Your task to perform on an android device: turn notification dots on Image 0: 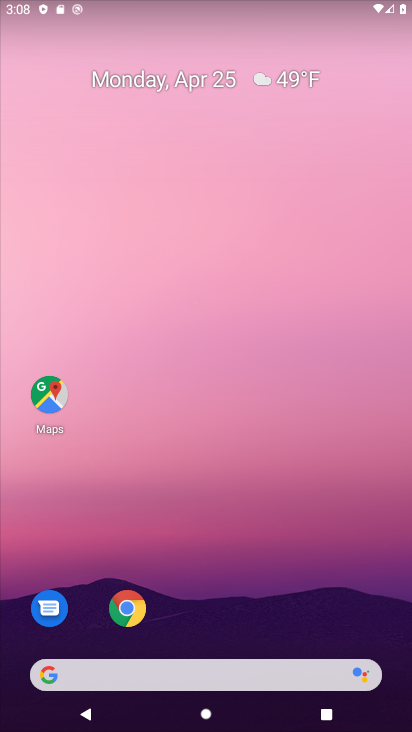
Step 0: click (238, 133)
Your task to perform on an android device: turn notification dots on Image 1: 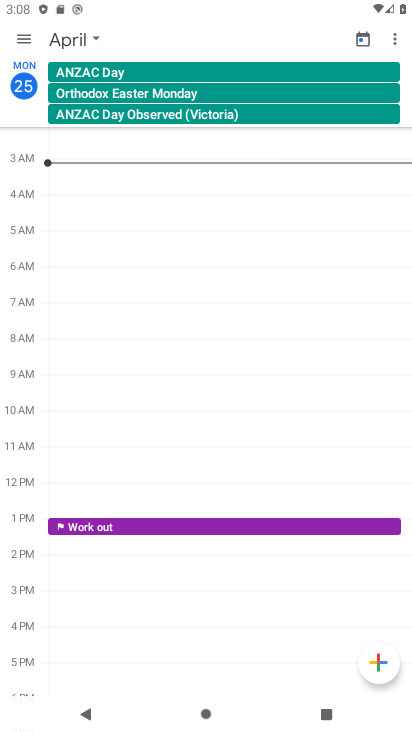
Step 1: click (19, 47)
Your task to perform on an android device: turn notification dots on Image 2: 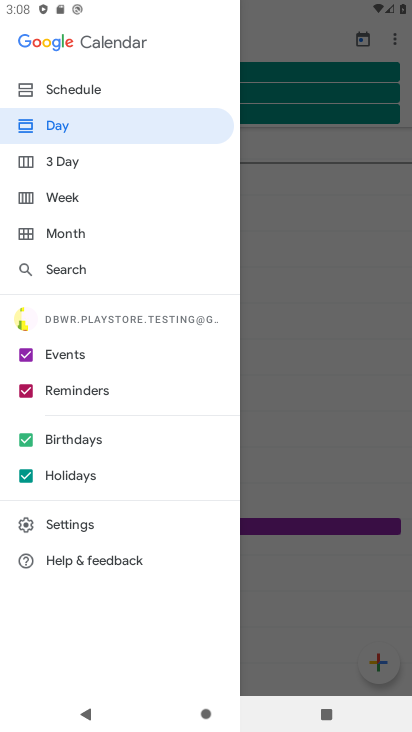
Step 2: click (72, 530)
Your task to perform on an android device: turn notification dots on Image 3: 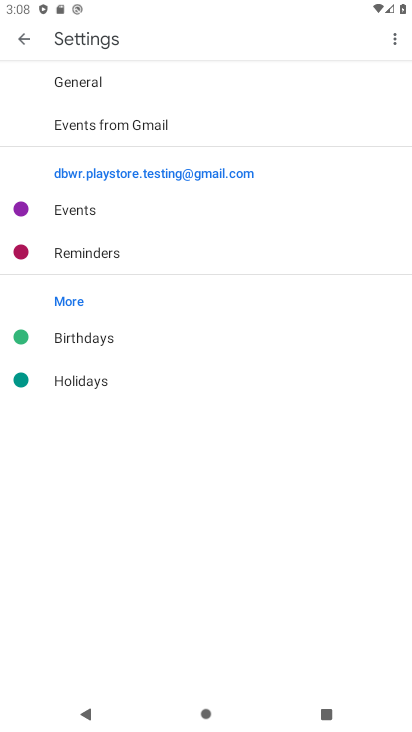
Step 3: press home button
Your task to perform on an android device: turn notification dots on Image 4: 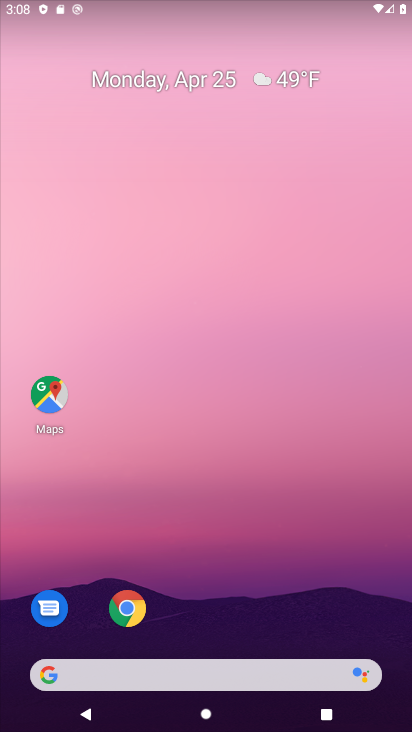
Step 4: drag from (198, 652) to (228, 235)
Your task to perform on an android device: turn notification dots on Image 5: 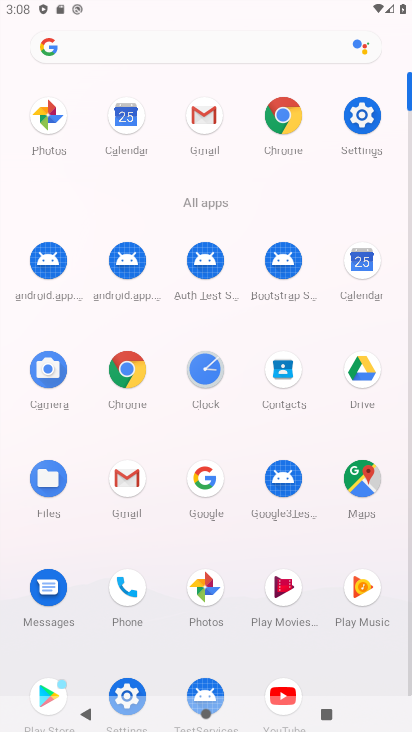
Step 5: click (124, 682)
Your task to perform on an android device: turn notification dots on Image 6: 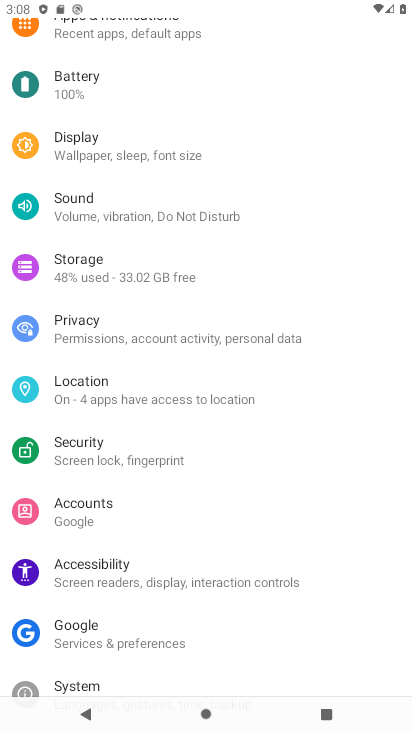
Step 6: drag from (106, 219) to (105, 621)
Your task to perform on an android device: turn notification dots on Image 7: 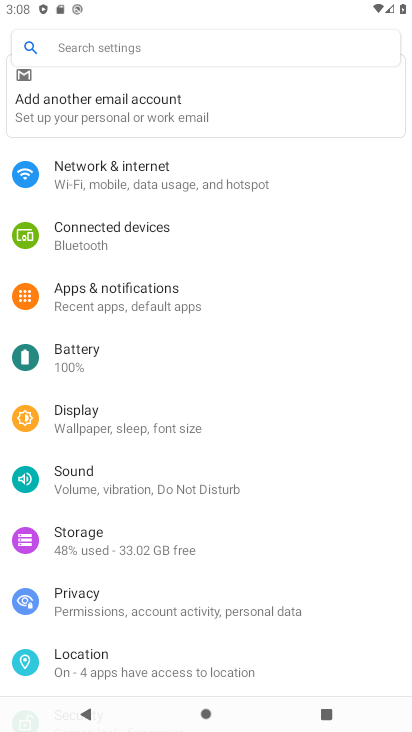
Step 7: click (184, 310)
Your task to perform on an android device: turn notification dots on Image 8: 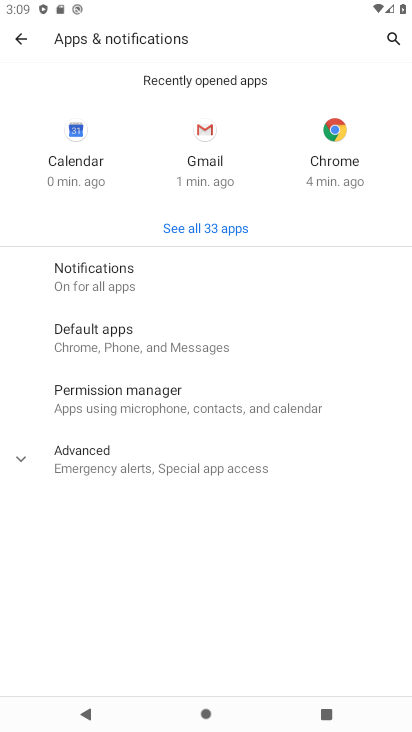
Step 8: click (144, 288)
Your task to perform on an android device: turn notification dots on Image 9: 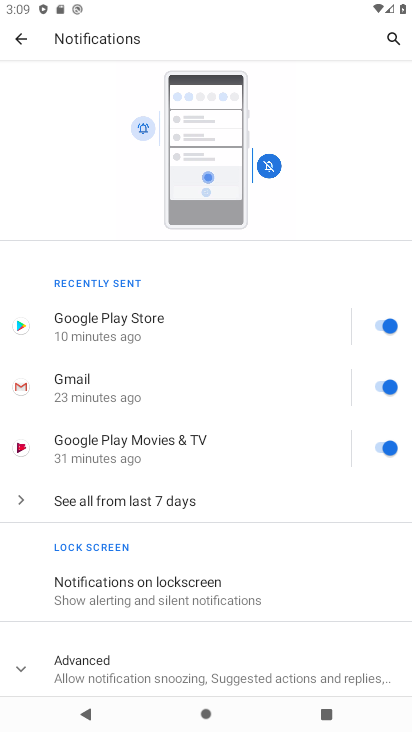
Step 9: drag from (230, 452) to (233, 368)
Your task to perform on an android device: turn notification dots on Image 10: 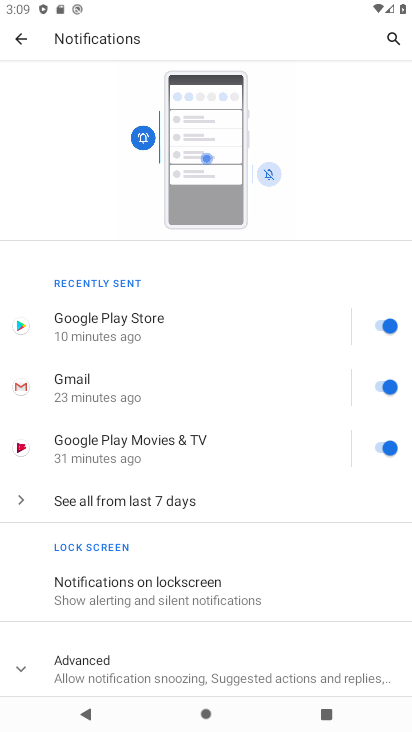
Step 10: click (128, 669)
Your task to perform on an android device: turn notification dots on Image 11: 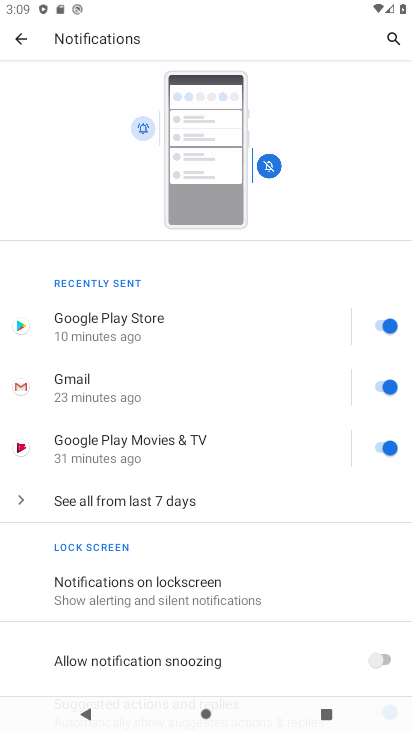
Step 11: task complete